Your task to perform on an android device: Is it going to rain this weekend? Image 0: 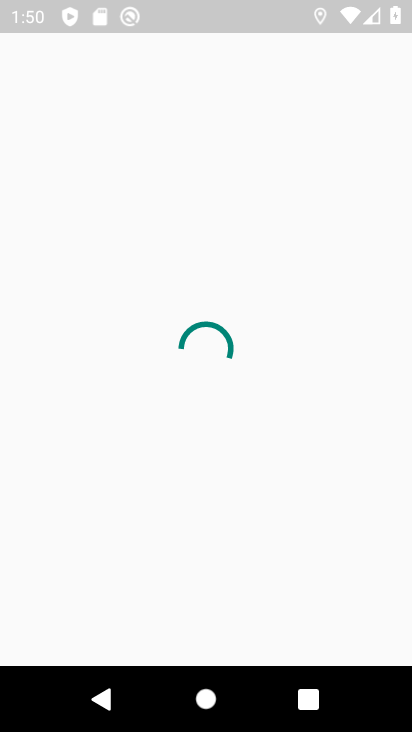
Step 0: press home button
Your task to perform on an android device: Is it going to rain this weekend? Image 1: 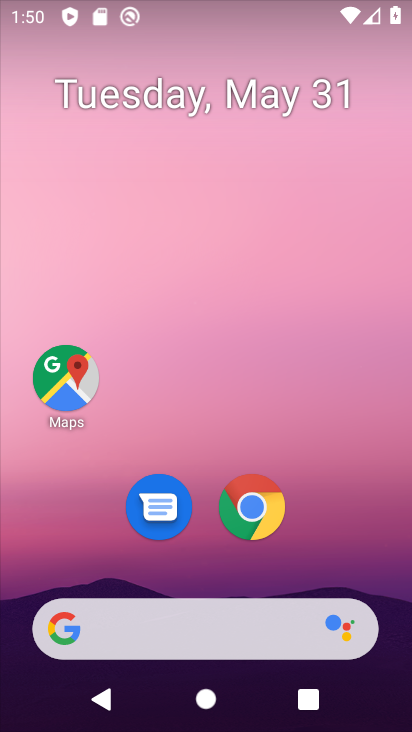
Step 1: click (225, 103)
Your task to perform on an android device: Is it going to rain this weekend? Image 2: 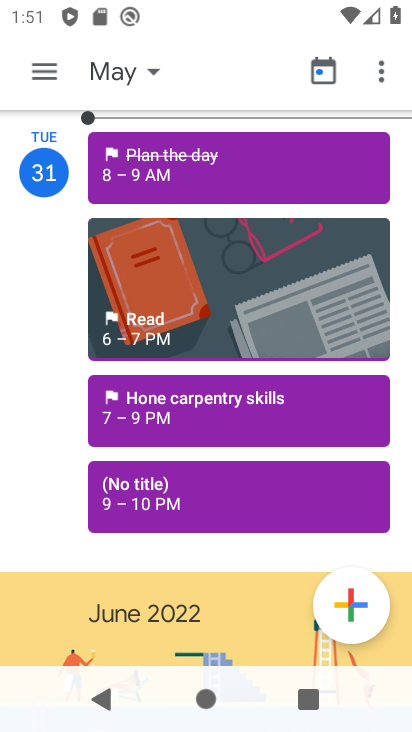
Step 2: press home button
Your task to perform on an android device: Is it going to rain this weekend? Image 3: 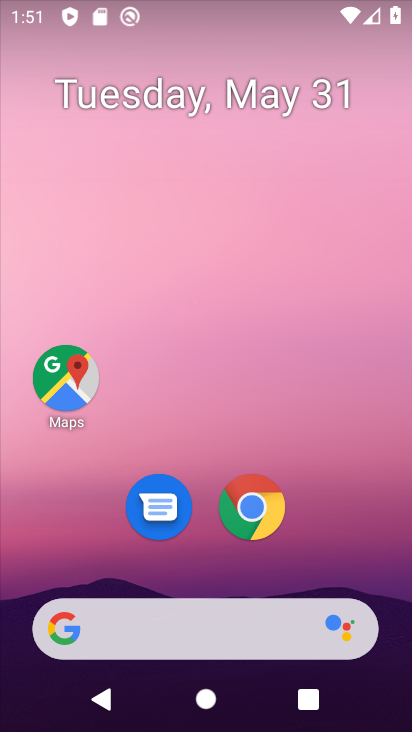
Step 3: click (246, 615)
Your task to perform on an android device: Is it going to rain this weekend? Image 4: 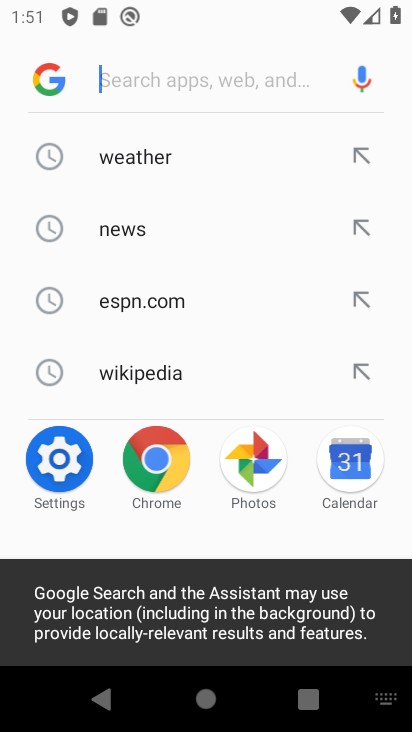
Step 4: click (196, 164)
Your task to perform on an android device: Is it going to rain this weekend? Image 5: 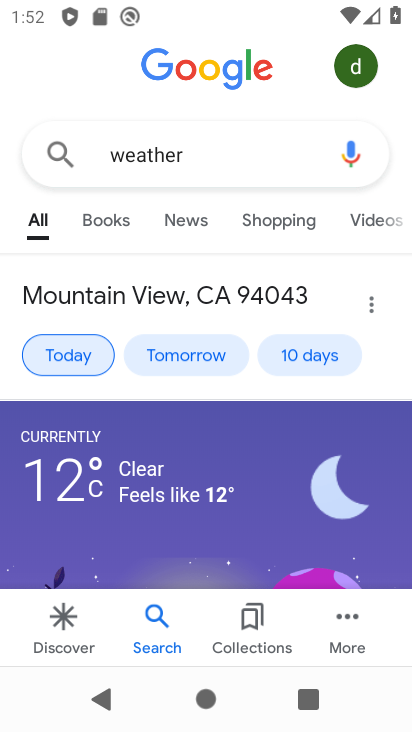
Step 5: task complete